Your task to perform on an android device: Open privacy settings Image 0: 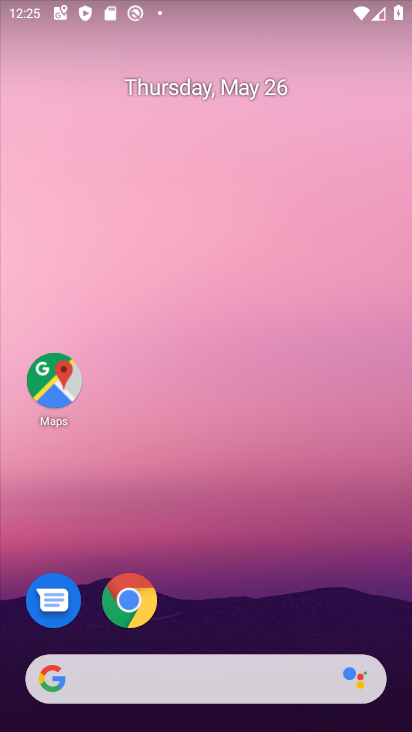
Step 0: drag from (263, 475) to (271, 139)
Your task to perform on an android device: Open privacy settings Image 1: 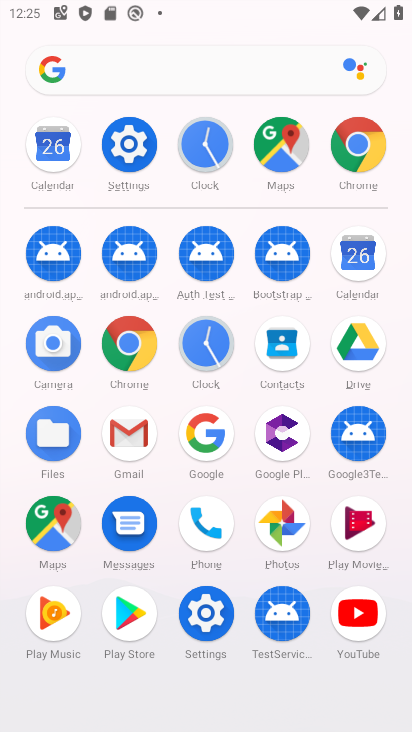
Step 1: click (141, 145)
Your task to perform on an android device: Open privacy settings Image 2: 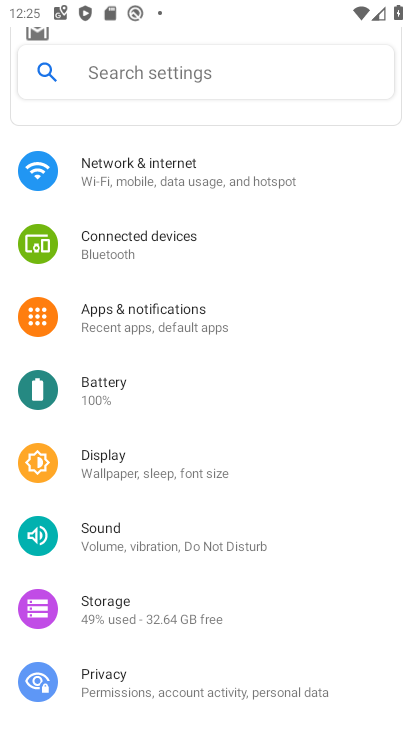
Step 2: drag from (165, 532) to (194, 237)
Your task to perform on an android device: Open privacy settings Image 3: 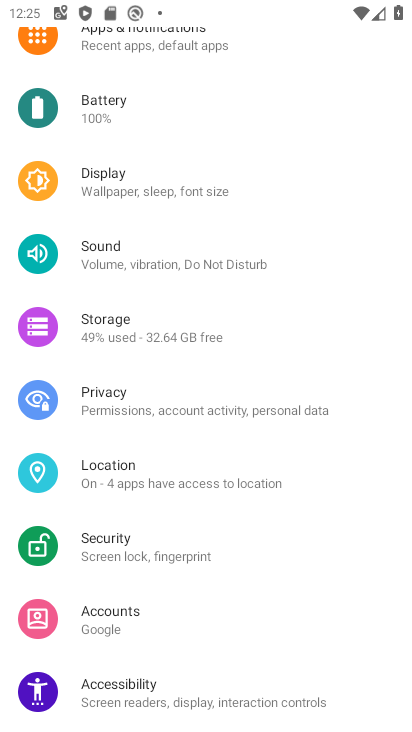
Step 3: click (112, 404)
Your task to perform on an android device: Open privacy settings Image 4: 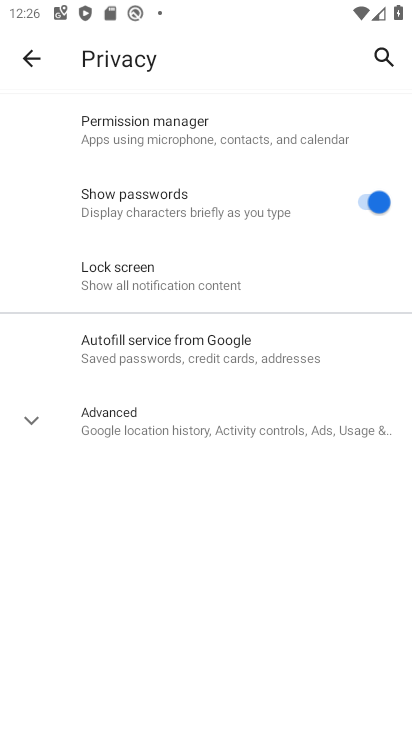
Step 4: task complete